Your task to perform on an android device: turn off javascript in the chrome app Image 0: 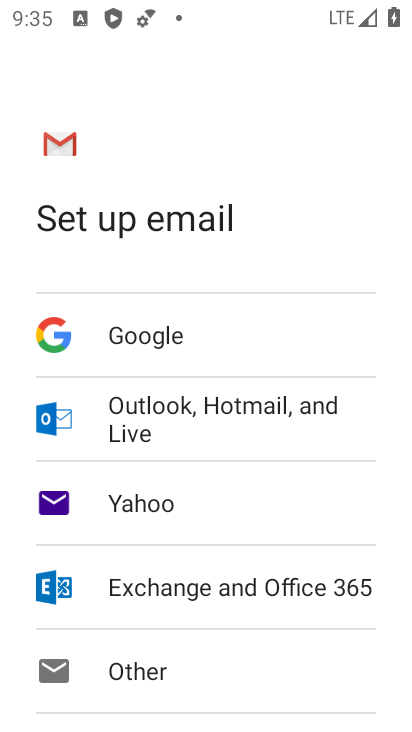
Step 0: press home button
Your task to perform on an android device: turn off javascript in the chrome app Image 1: 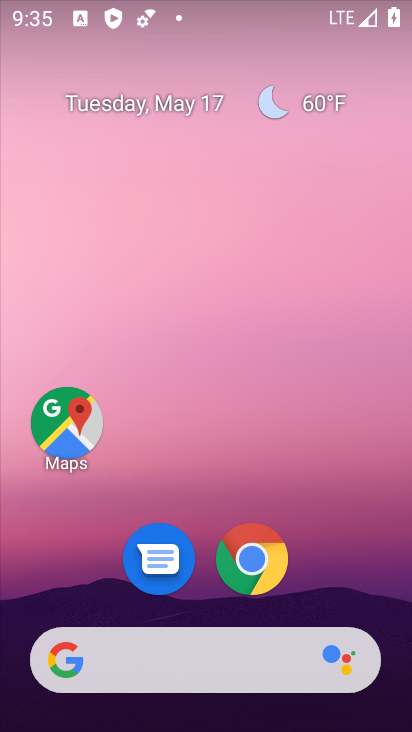
Step 1: click (228, 571)
Your task to perform on an android device: turn off javascript in the chrome app Image 2: 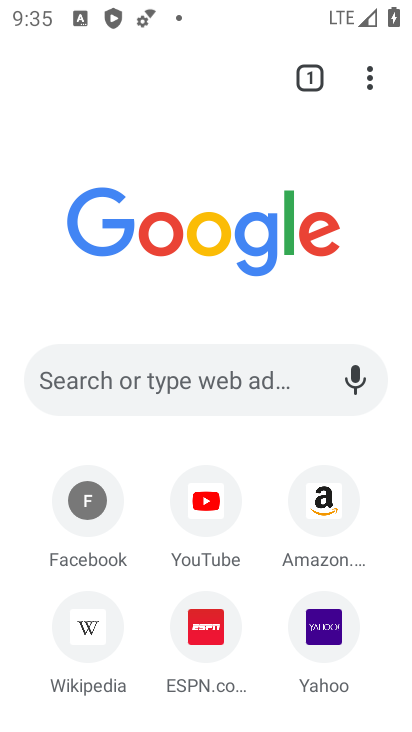
Step 2: drag from (366, 85) to (136, 638)
Your task to perform on an android device: turn off javascript in the chrome app Image 3: 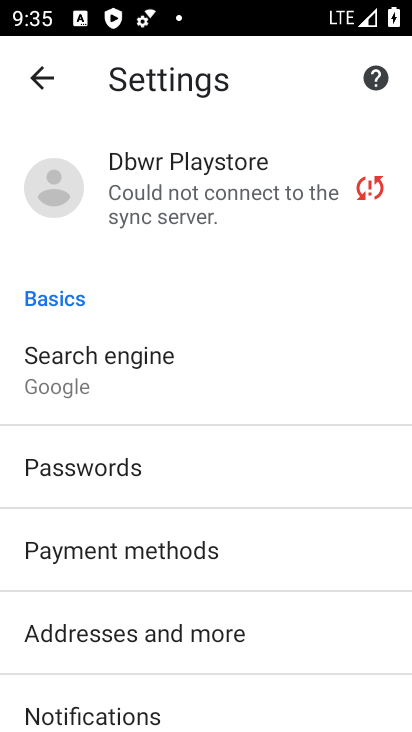
Step 3: drag from (199, 672) to (257, 392)
Your task to perform on an android device: turn off javascript in the chrome app Image 4: 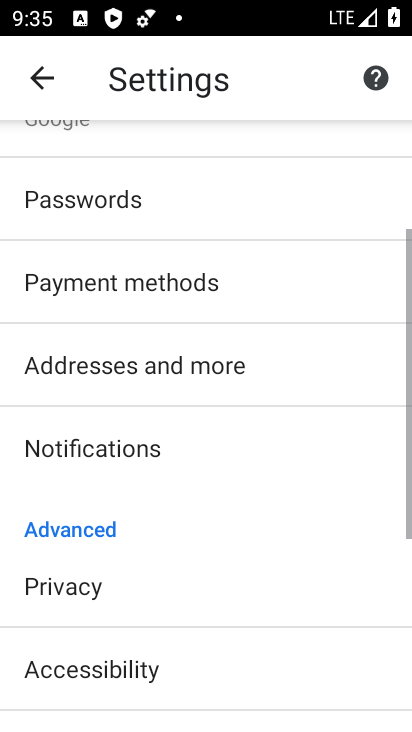
Step 4: drag from (226, 628) to (252, 369)
Your task to perform on an android device: turn off javascript in the chrome app Image 5: 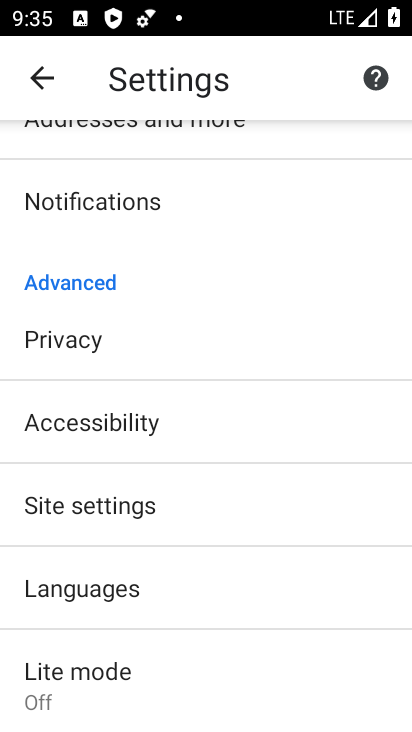
Step 5: click (185, 495)
Your task to perform on an android device: turn off javascript in the chrome app Image 6: 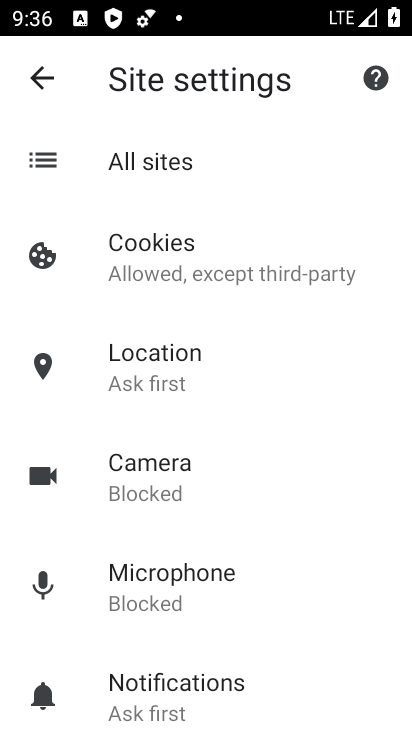
Step 6: drag from (233, 493) to (248, 339)
Your task to perform on an android device: turn off javascript in the chrome app Image 7: 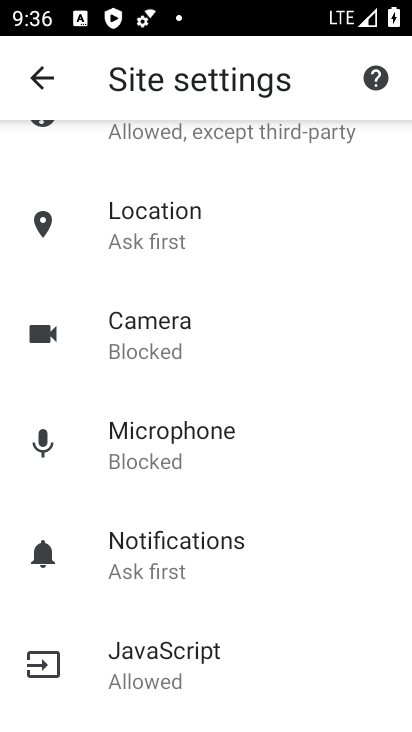
Step 7: click (232, 647)
Your task to perform on an android device: turn off javascript in the chrome app Image 8: 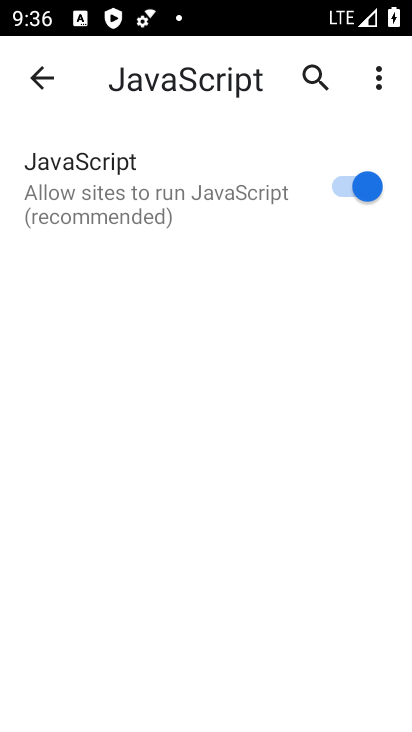
Step 8: click (346, 190)
Your task to perform on an android device: turn off javascript in the chrome app Image 9: 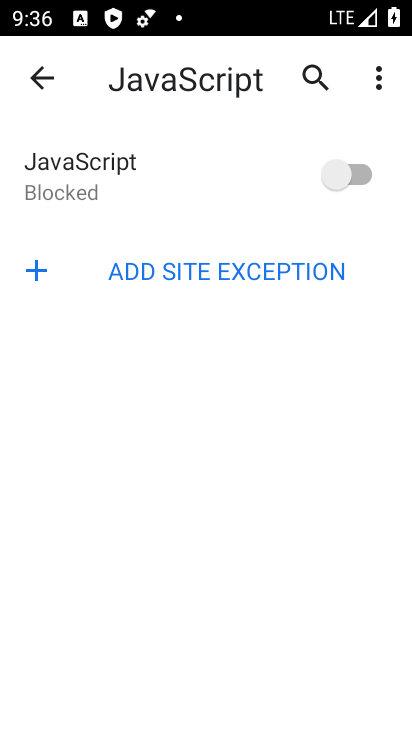
Step 9: task complete